Your task to perform on an android device: check storage Image 0: 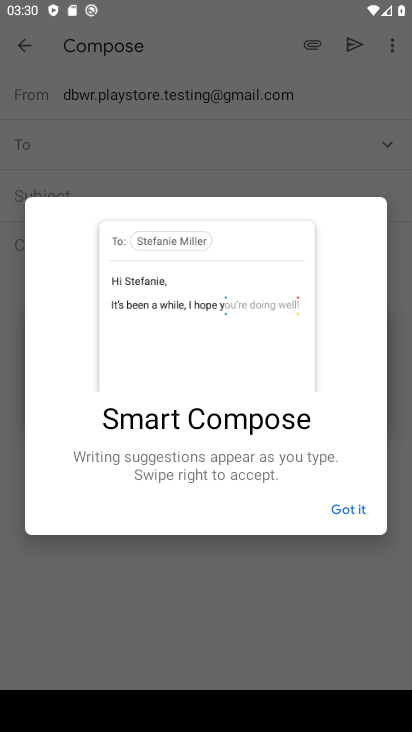
Step 0: press home button
Your task to perform on an android device: check storage Image 1: 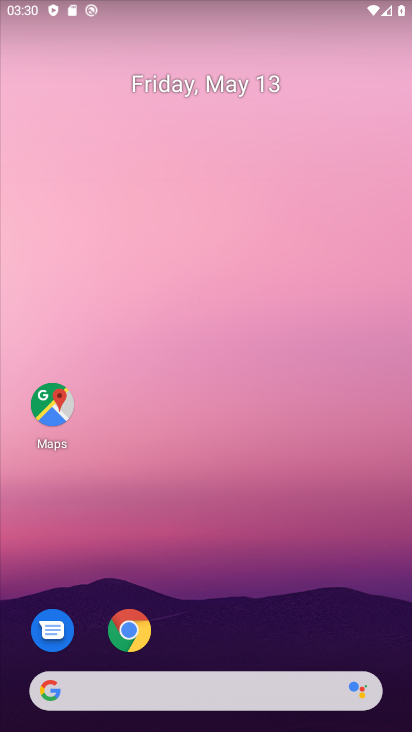
Step 1: drag from (214, 662) to (181, 31)
Your task to perform on an android device: check storage Image 2: 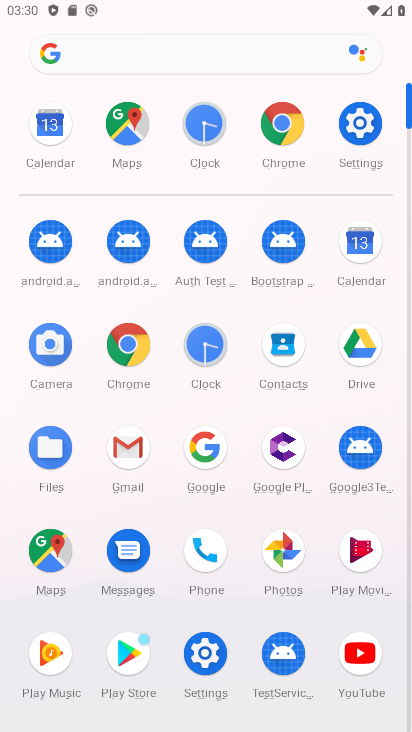
Step 2: click (359, 133)
Your task to perform on an android device: check storage Image 3: 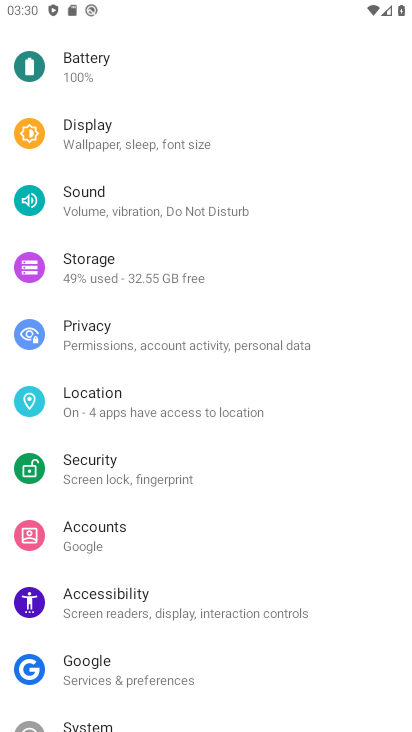
Step 3: click (93, 259)
Your task to perform on an android device: check storage Image 4: 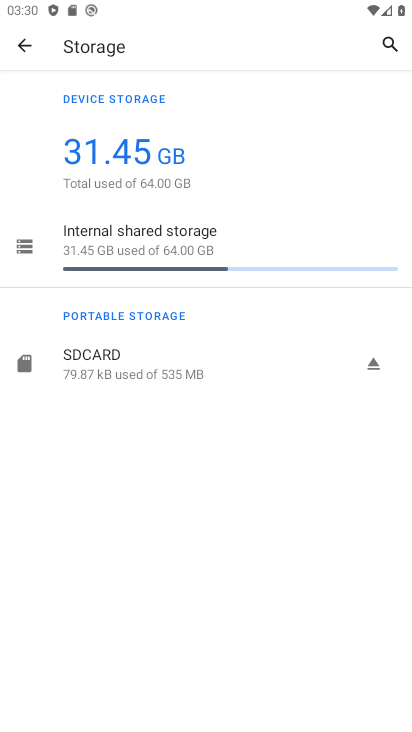
Step 4: task complete